Your task to perform on an android device: Open Youtube and go to "Your channel" Image 0: 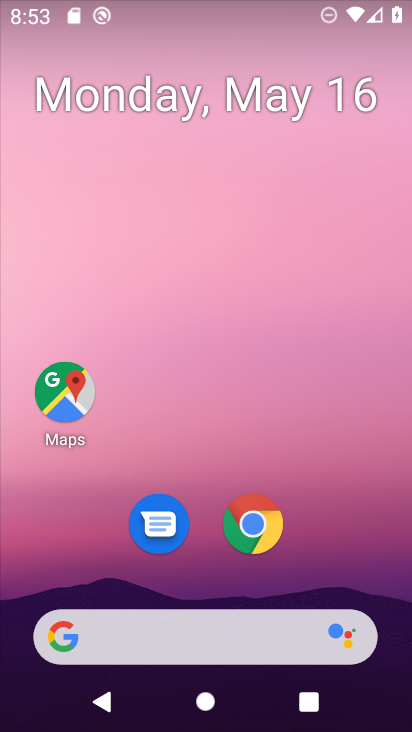
Step 0: drag from (321, 516) to (231, 0)
Your task to perform on an android device: Open Youtube and go to "Your channel" Image 1: 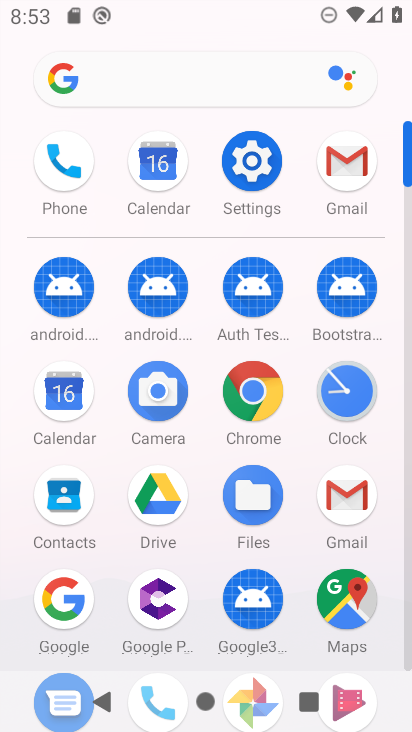
Step 1: drag from (216, 453) to (202, 124)
Your task to perform on an android device: Open Youtube and go to "Your channel" Image 2: 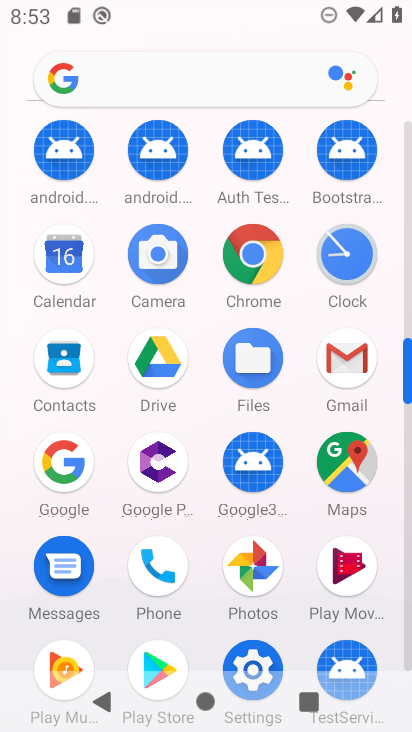
Step 2: drag from (196, 461) to (176, 198)
Your task to perform on an android device: Open Youtube and go to "Your channel" Image 3: 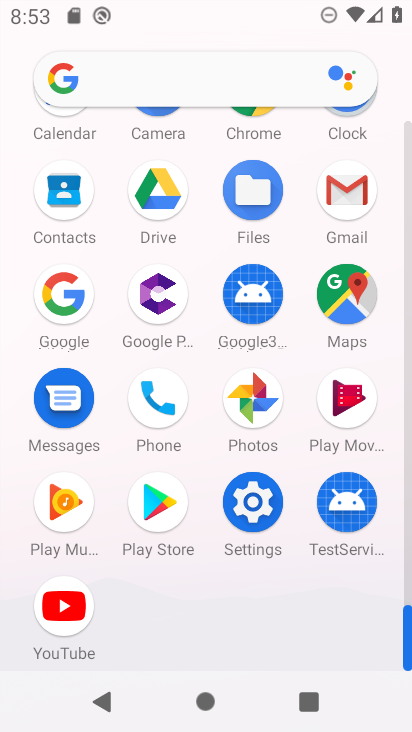
Step 3: click (63, 596)
Your task to perform on an android device: Open Youtube and go to "Your channel" Image 4: 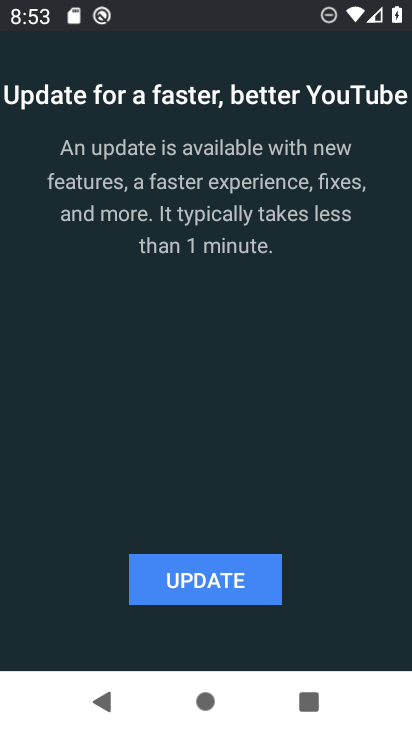
Step 4: click (248, 571)
Your task to perform on an android device: Open Youtube and go to "Your channel" Image 5: 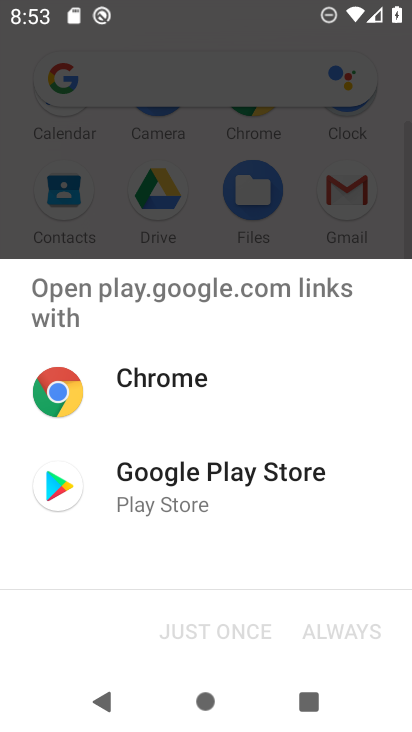
Step 5: click (168, 483)
Your task to perform on an android device: Open Youtube and go to "Your channel" Image 6: 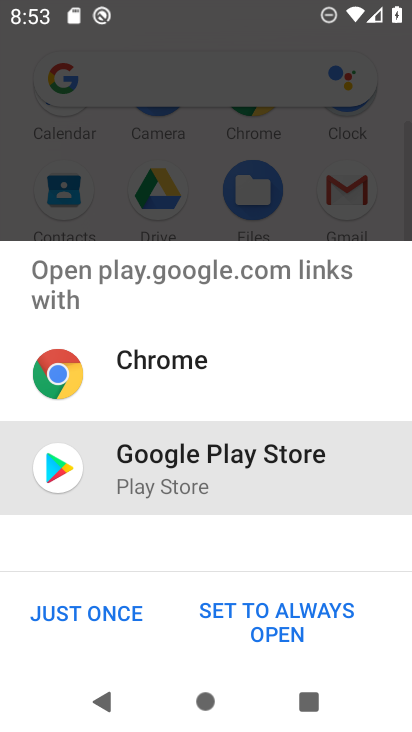
Step 6: click (117, 598)
Your task to perform on an android device: Open Youtube and go to "Your channel" Image 7: 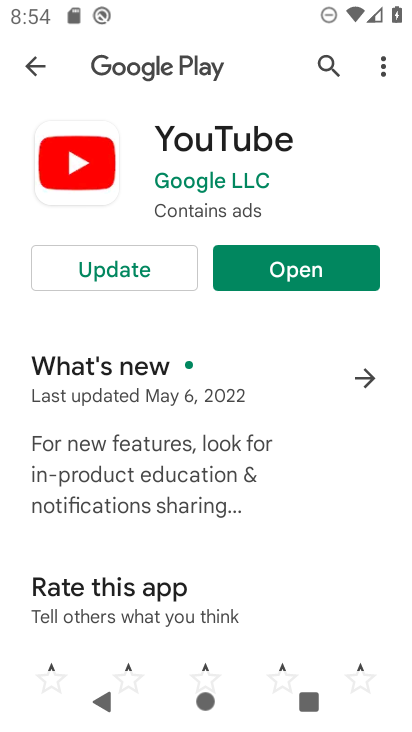
Step 7: click (113, 264)
Your task to perform on an android device: Open Youtube and go to "Your channel" Image 8: 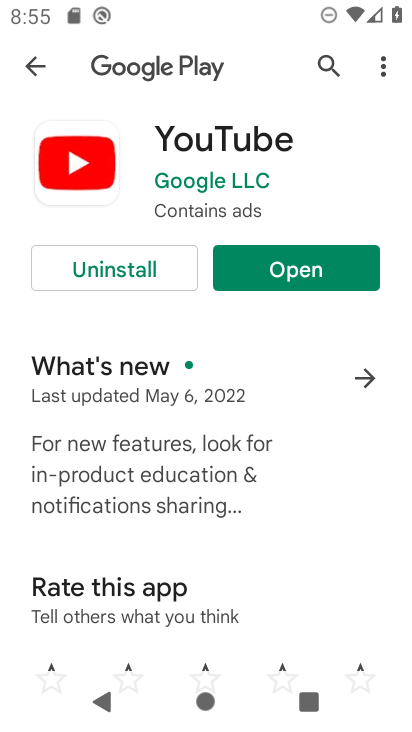
Step 8: click (242, 264)
Your task to perform on an android device: Open Youtube and go to "Your channel" Image 9: 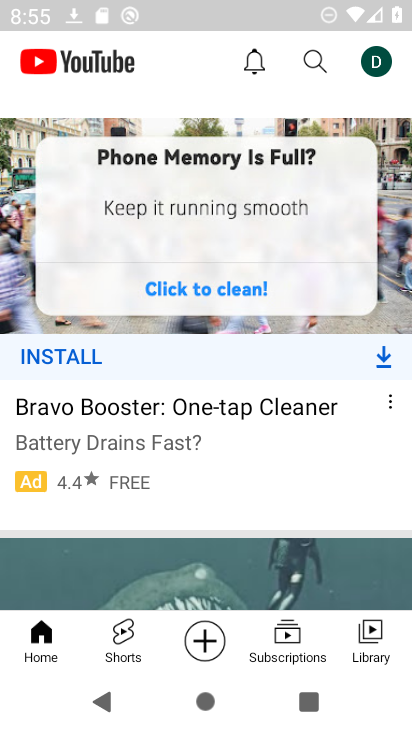
Step 9: click (376, 53)
Your task to perform on an android device: Open Youtube and go to "Your channel" Image 10: 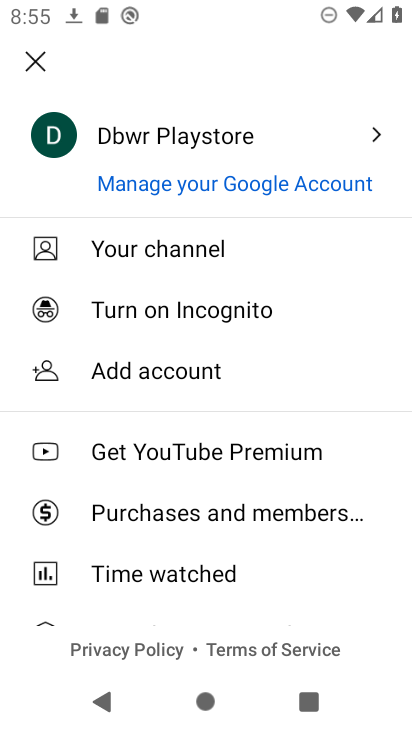
Step 10: click (206, 241)
Your task to perform on an android device: Open Youtube and go to "Your channel" Image 11: 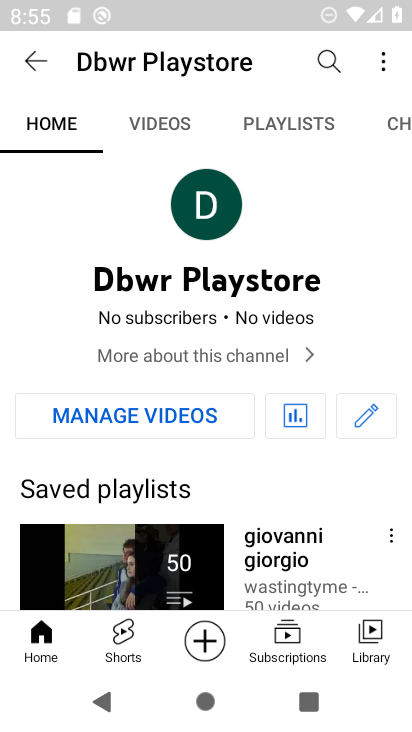
Step 11: task complete